Your task to perform on an android device: turn off improve location accuracy Image 0: 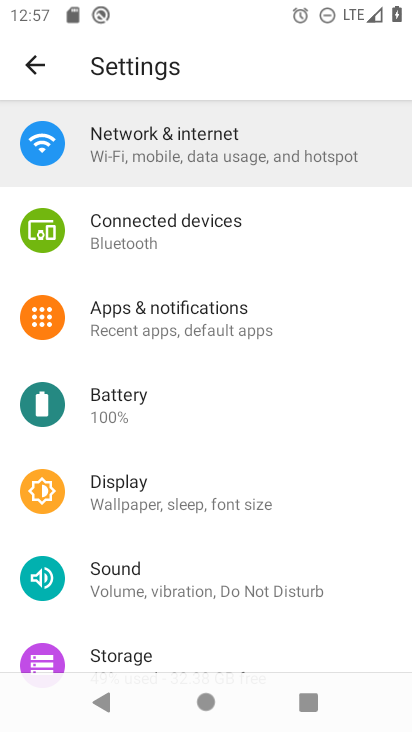
Step 0: drag from (272, 604) to (272, 356)
Your task to perform on an android device: turn off improve location accuracy Image 1: 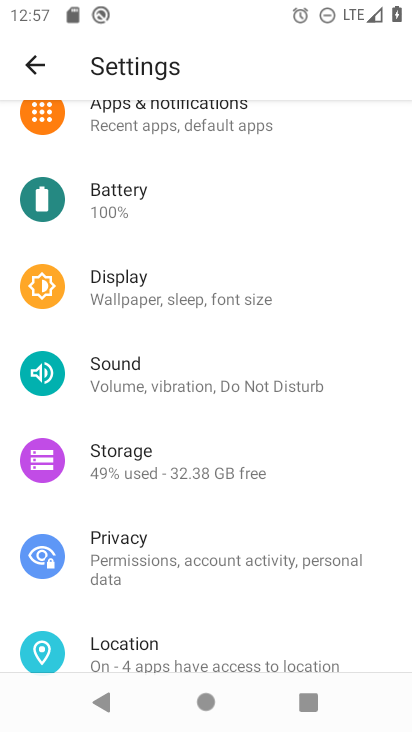
Step 1: drag from (253, 590) to (215, 412)
Your task to perform on an android device: turn off improve location accuracy Image 2: 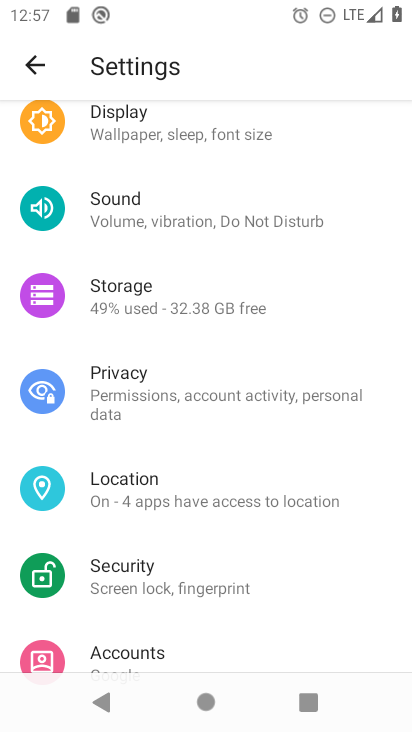
Step 2: click (170, 490)
Your task to perform on an android device: turn off improve location accuracy Image 3: 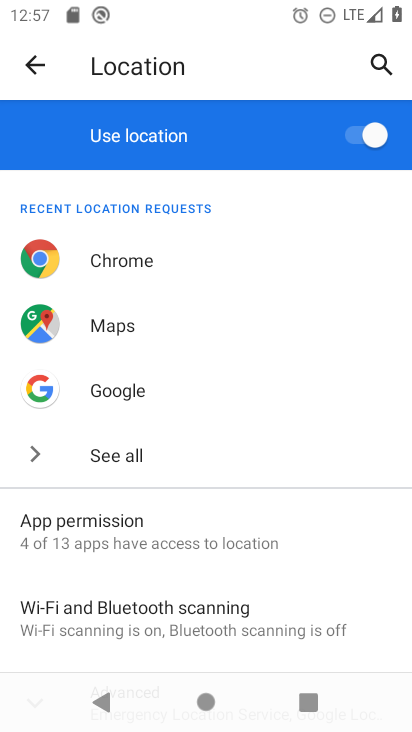
Step 3: drag from (201, 546) to (161, 274)
Your task to perform on an android device: turn off improve location accuracy Image 4: 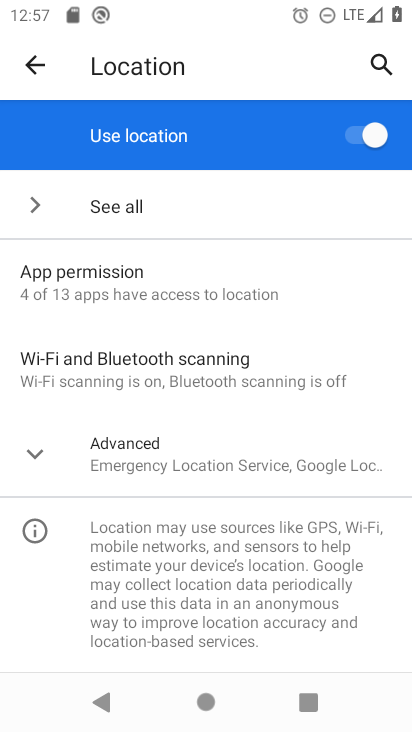
Step 4: click (154, 436)
Your task to perform on an android device: turn off improve location accuracy Image 5: 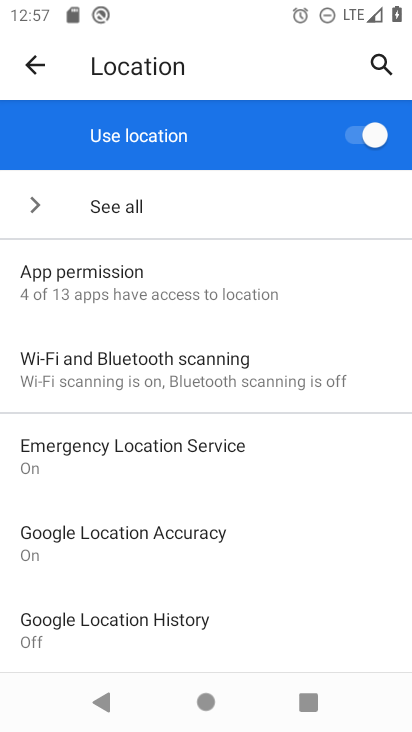
Step 5: click (187, 524)
Your task to perform on an android device: turn off improve location accuracy Image 6: 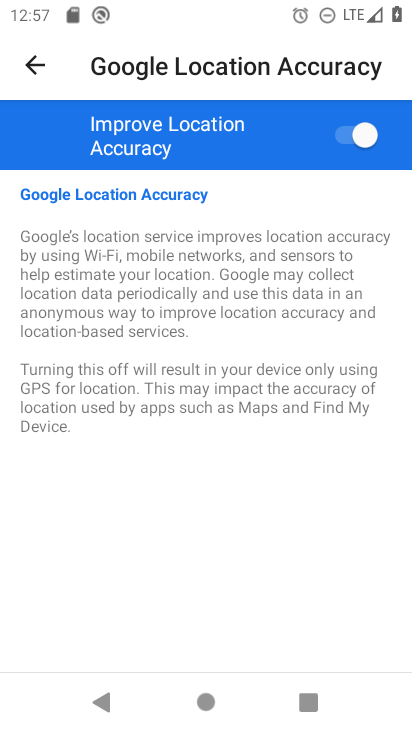
Step 6: click (369, 127)
Your task to perform on an android device: turn off improve location accuracy Image 7: 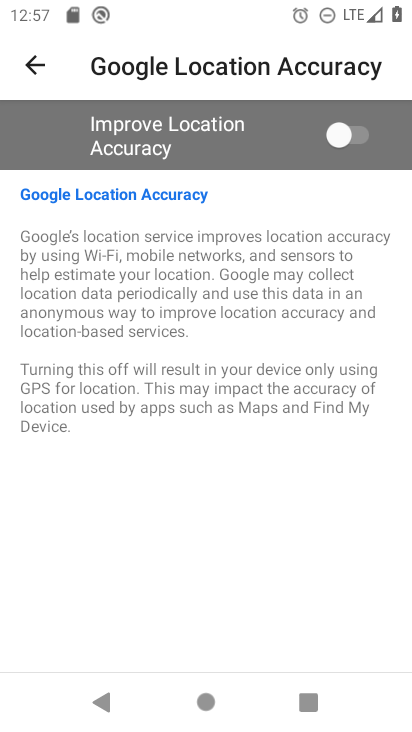
Step 7: task complete